Your task to perform on an android device: Go to calendar. Show me events next week Image 0: 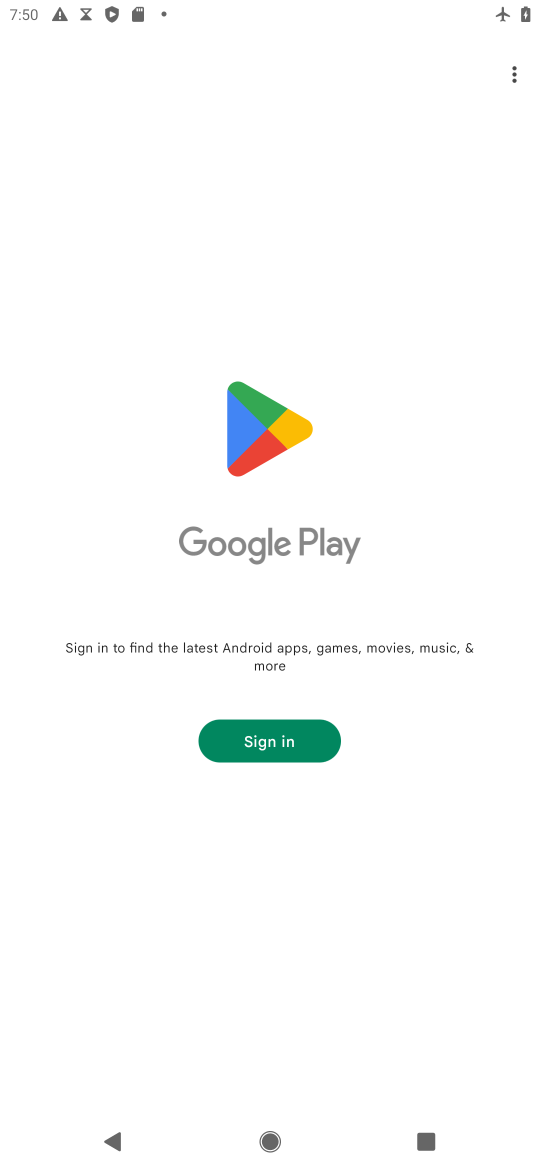
Step 0: press home button
Your task to perform on an android device: Go to calendar. Show me events next week Image 1: 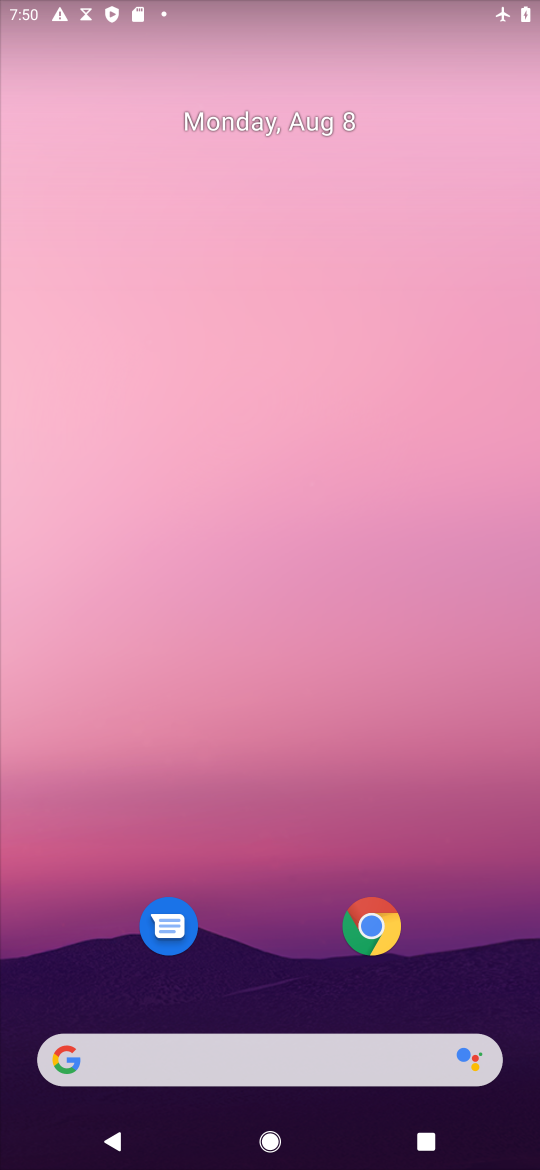
Step 1: drag from (284, 987) to (337, 258)
Your task to perform on an android device: Go to calendar. Show me events next week Image 2: 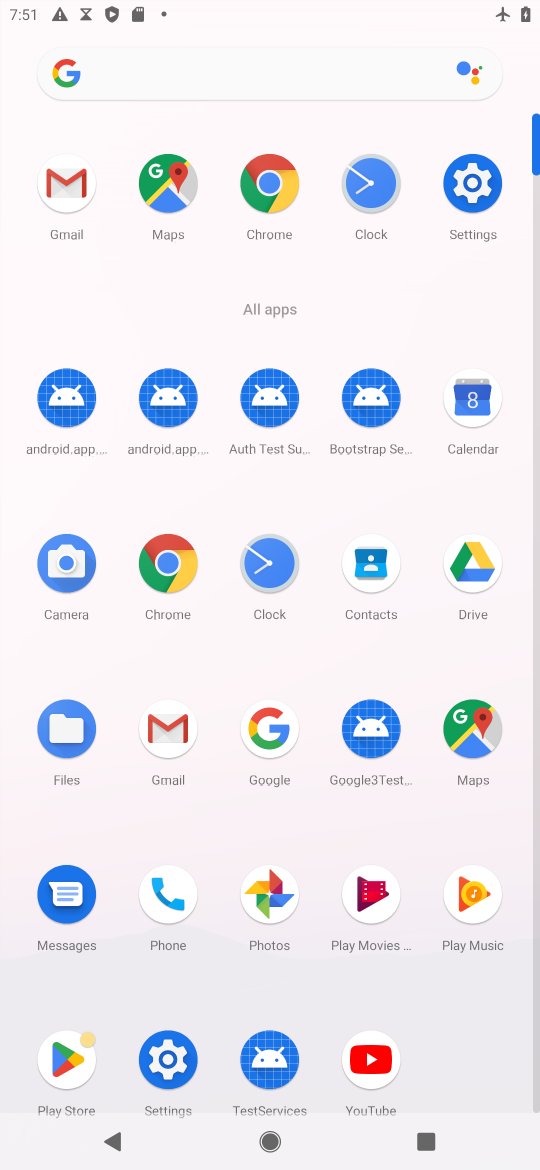
Step 2: click (488, 430)
Your task to perform on an android device: Go to calendar. Show me events next week Image 3: 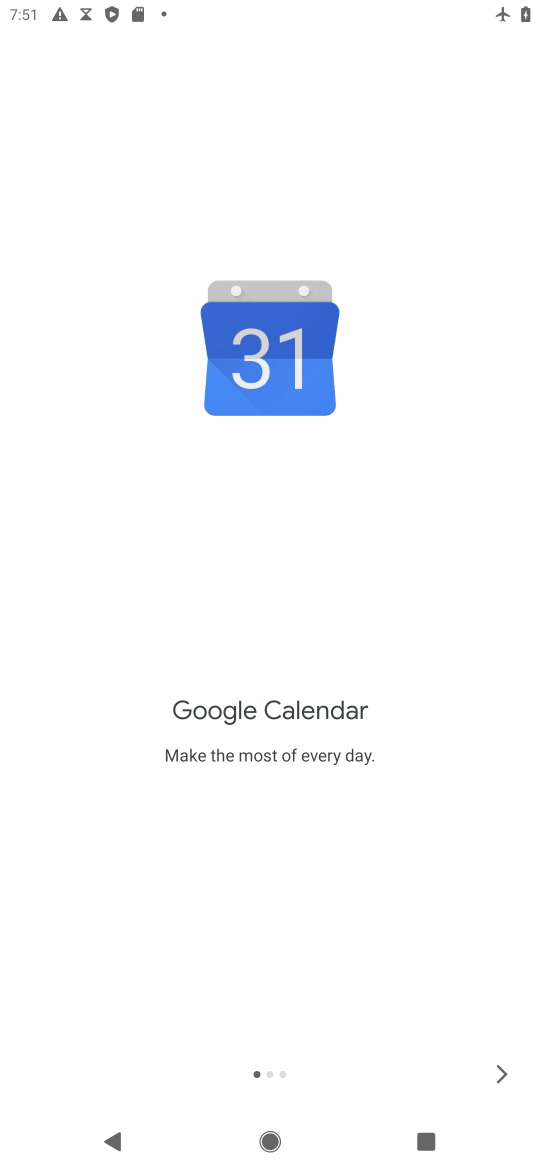
Step 3: click (501, 1066)
Your task to perform on an android device: Go to calendar. Show me events next week Image 4: 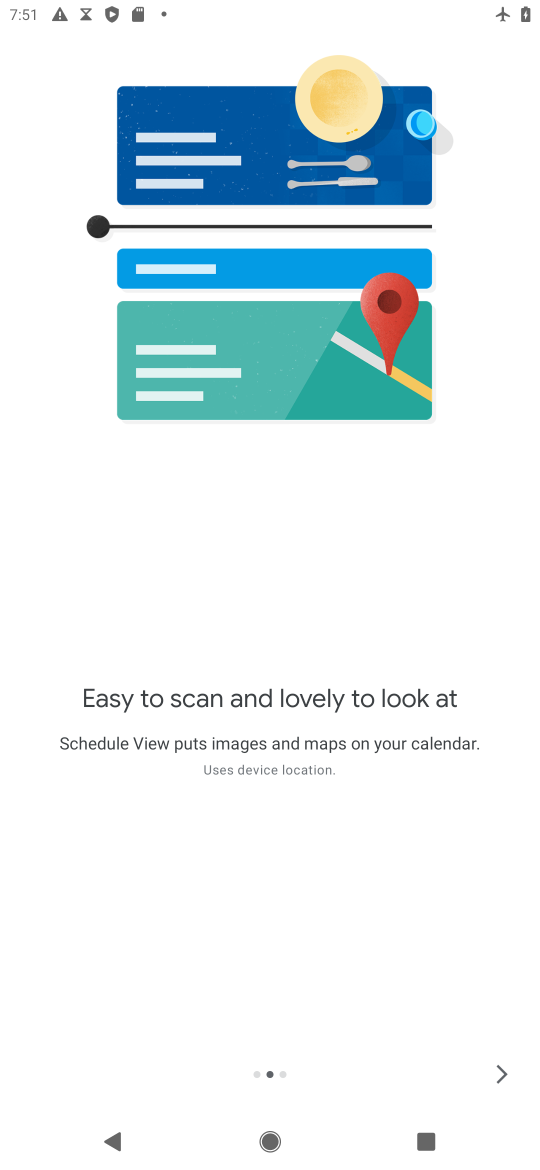
Step 4: click (498, 1066)
Your task to perform on an android device: Go to calendar. Show me events next week Image 5: 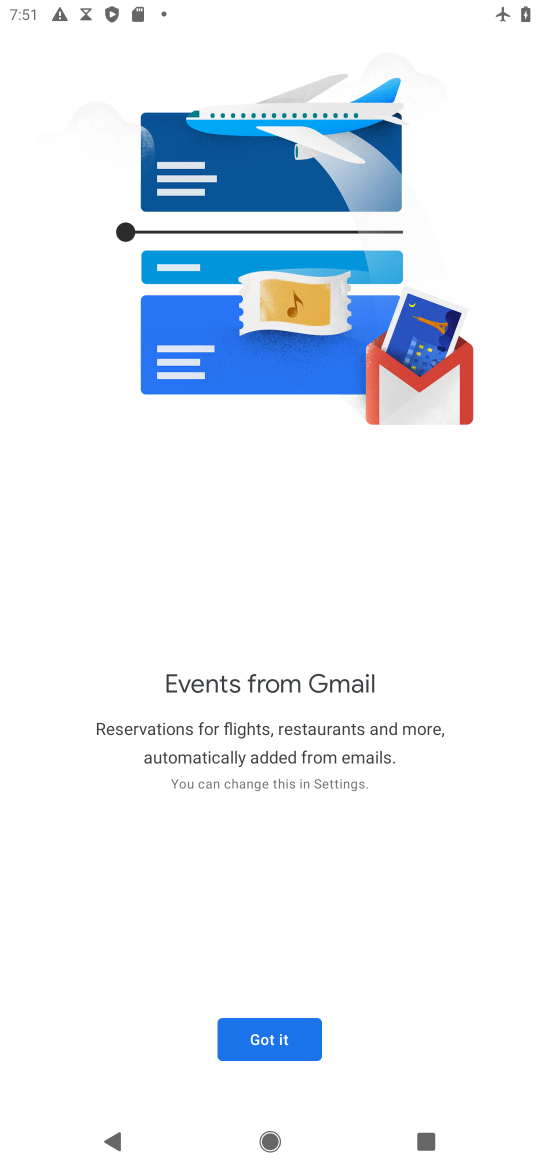
Step 5: click (496, 1065)
Your task to perform on an android device: Go to calendar. Show me events next week Image 6: 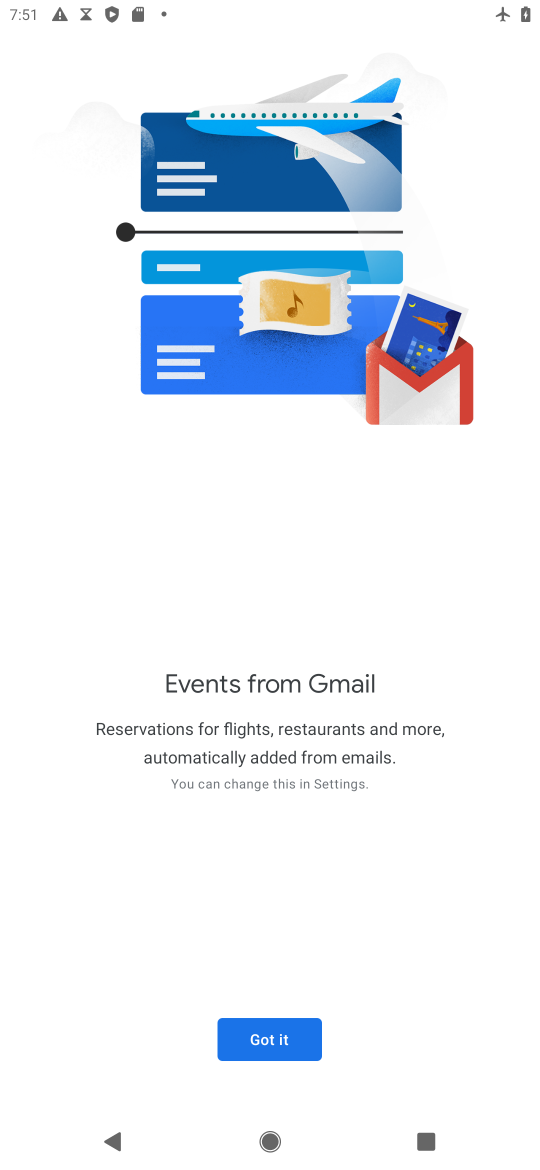
Step 6: click (258, 1037)
Your task to perform on an android device: Go to calendar. Show me events next week Image 7: 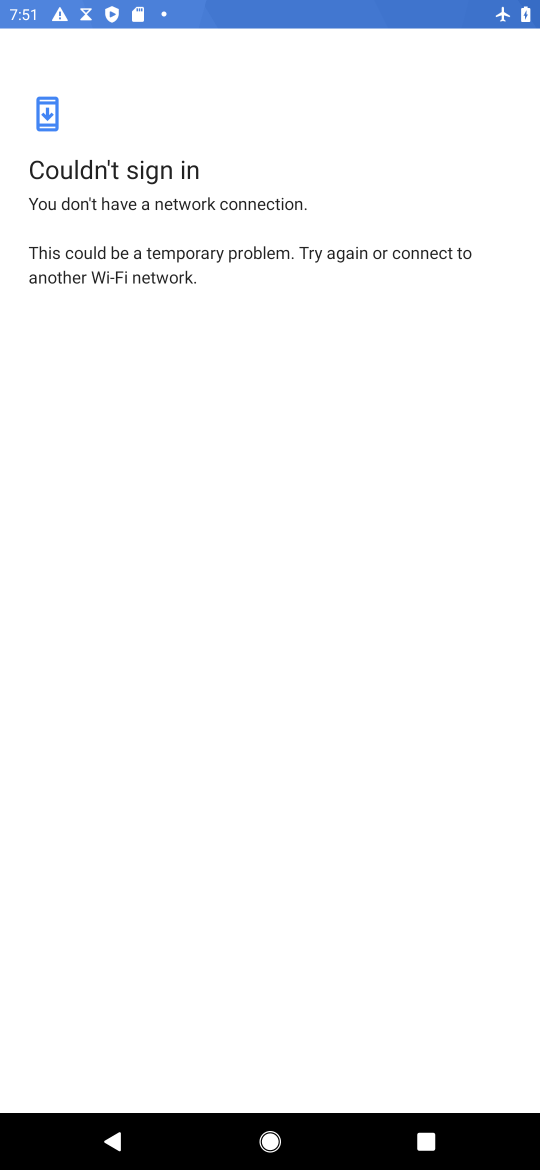
Step 7: task complete